Your task to perform on an android device: Is it going to rain tomorrow? Image 0: 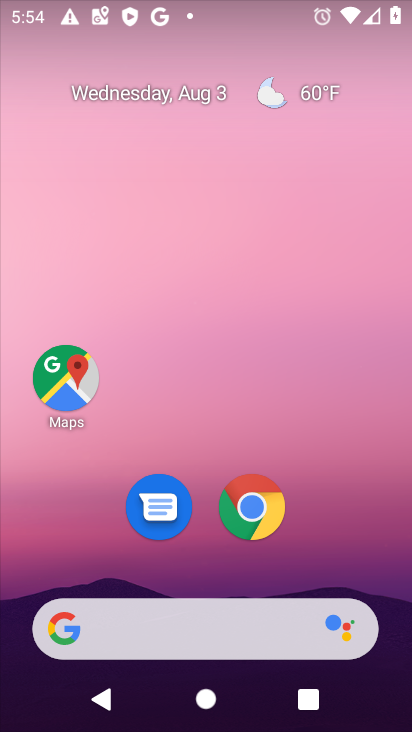
Step 0: click (359, 532)
Your task to perform on an android device: Is it going to rain tomorrow? Image 1: 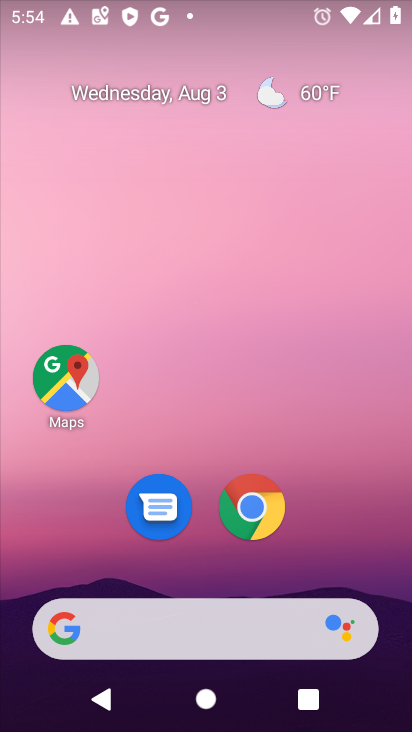
Step 1: click (323, 93)
Your task to perform on an android device: Is it going to rain tomorrow? Image 2: 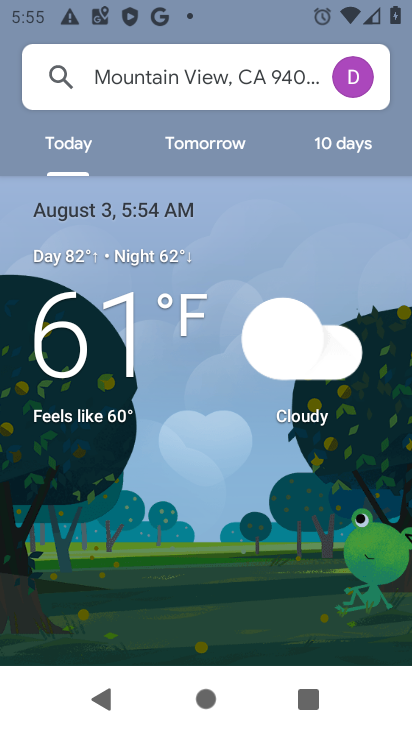
Step 2: click (243, 155)
Your task to perform on an android device: Is it going to rain tomorrow? Image 3: 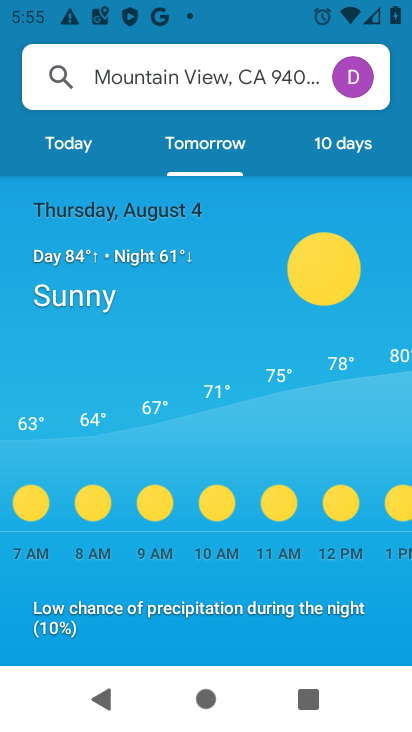
Step 3: task complete